Your task to perform on an android device: What's the weather? Image 0: 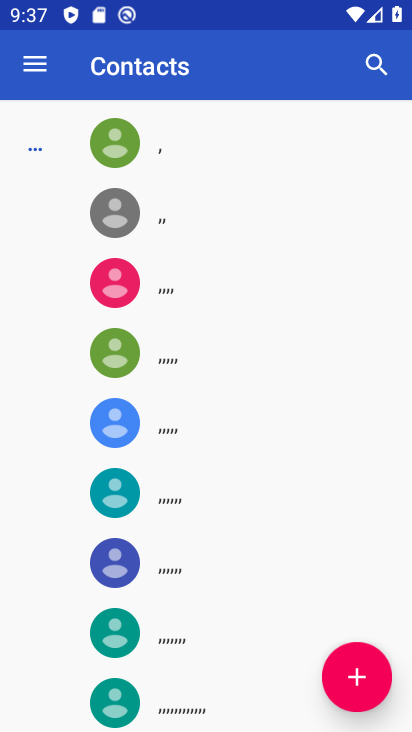
Step 0: press home button
Your task to perform on an android device: What's the weather? Image 1: 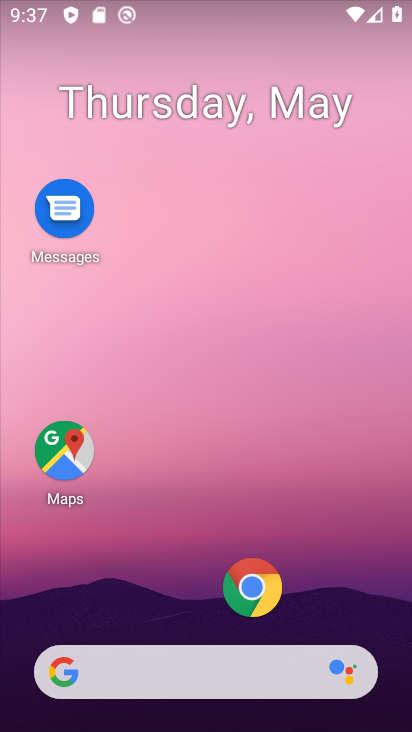
Step 1: drag from (226, 652) to (189, 33)
Your task to perform on an android device: What's the weather? Image 2: 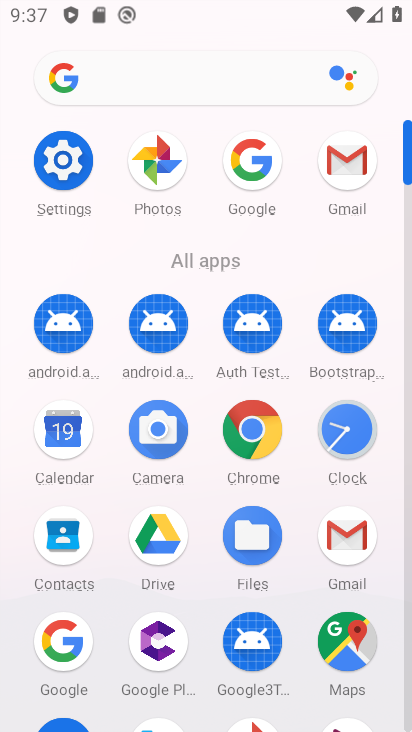
Step 2: click (45, 645)
Your task to perform on an android device: What's the weather? Image 3: 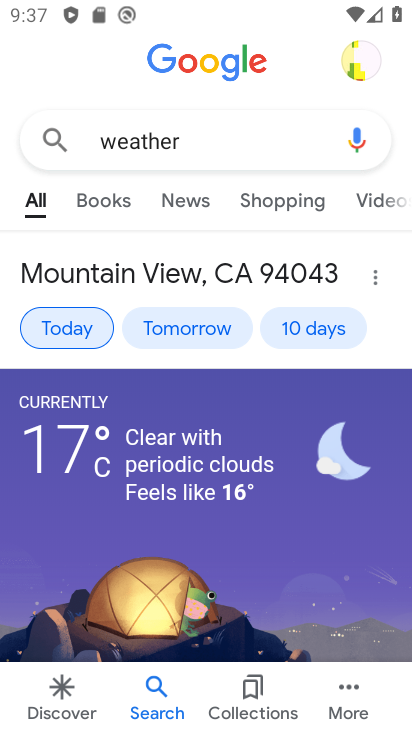
Step 3: task complete